Your task to perform on an android device: Open my contact list Image 0: 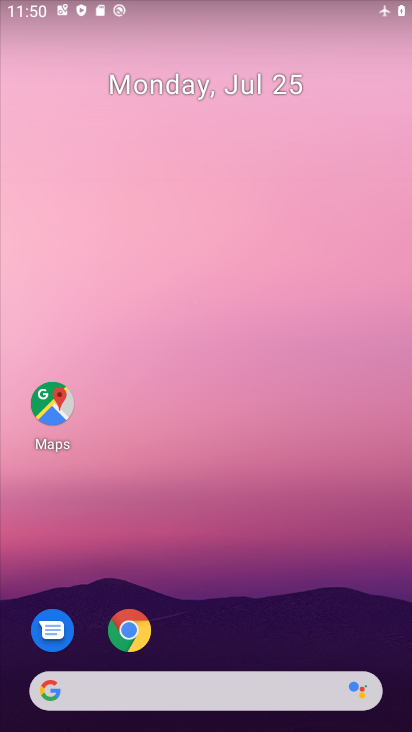
Step 0: drag from (282, 615) to (298, 213)
Your task to perform on an android device: Open my contact list Image 1: 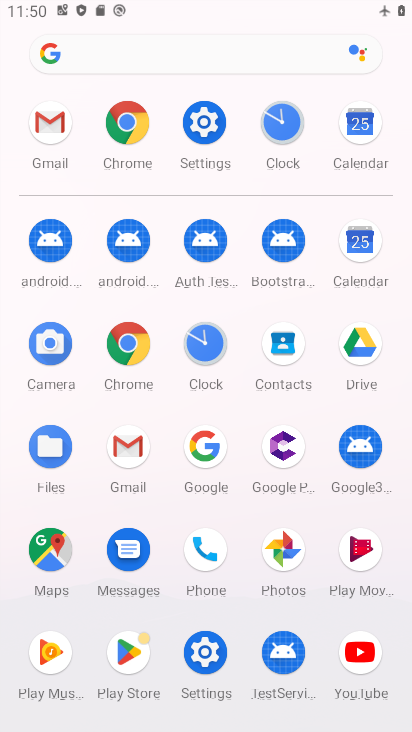
Step 1: click (285, 344)
Your task to perform on an android device: Open my contact list Image 2: 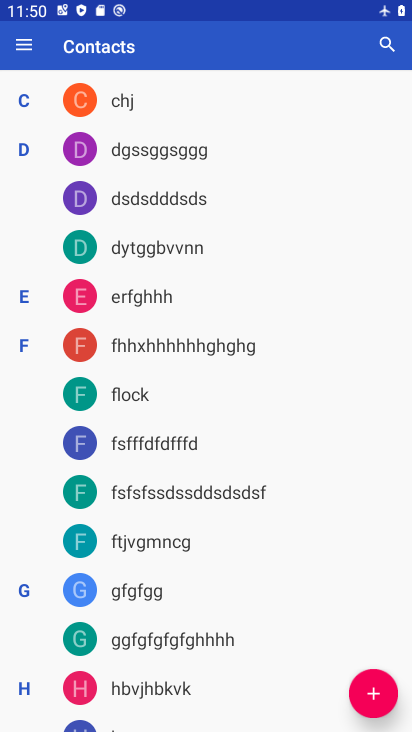
Step 2: task complete